Your task to perform on an android device: Go to Maps Image 0: 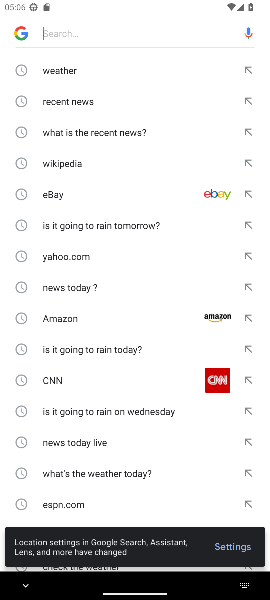
Step 0: press home button
Your task to perform on an android device: Go to Maps Image 1: 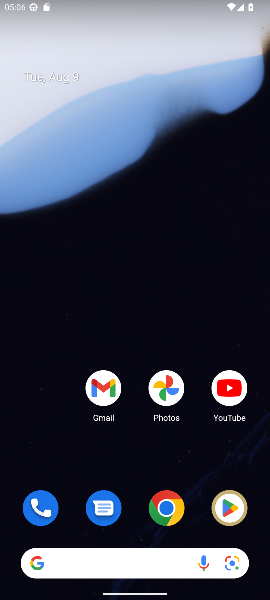
Step 1: drag from (129, 454) to (75, 6)
Your task to perform on an android device: Go to Maps Image 2: 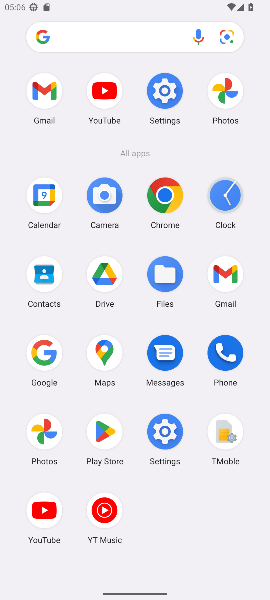
Step 2: click (98, 358)
Your task to perform on an android device: Go to Maps Image 3: 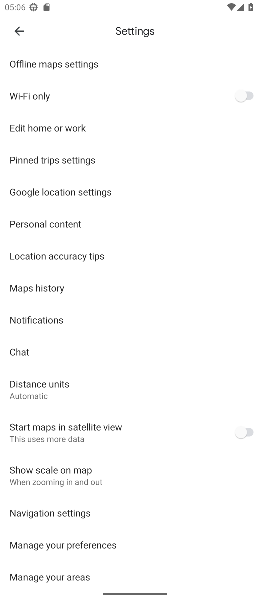
Step 3: click (21, 30)
Your task to perform on an android device: Go to Maps Image 4: 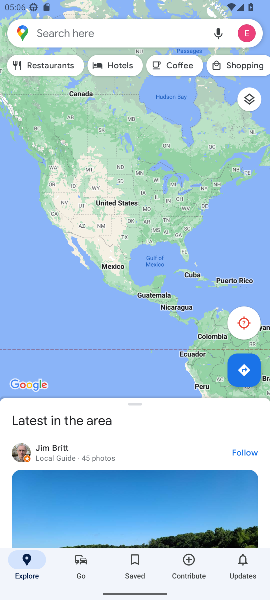
Step 4: task complete